Your task to perform on an android device: What's the weather going to be this weekend? Image 0: 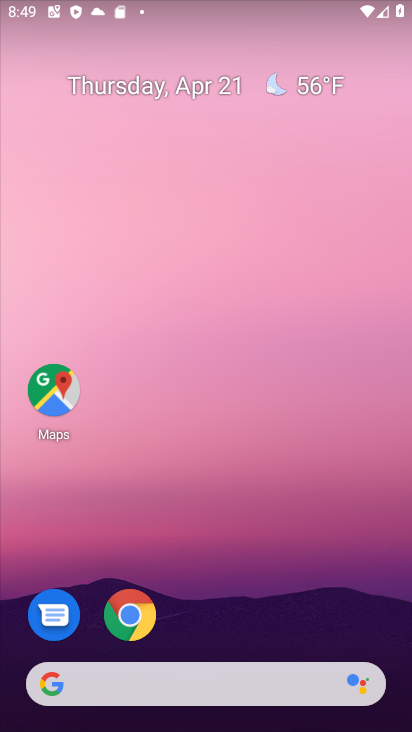
Step 0: drag from (209, 598) to (231, 12)
Your task to perform on an android device: What's the weather going to be this weekend? Image 1: 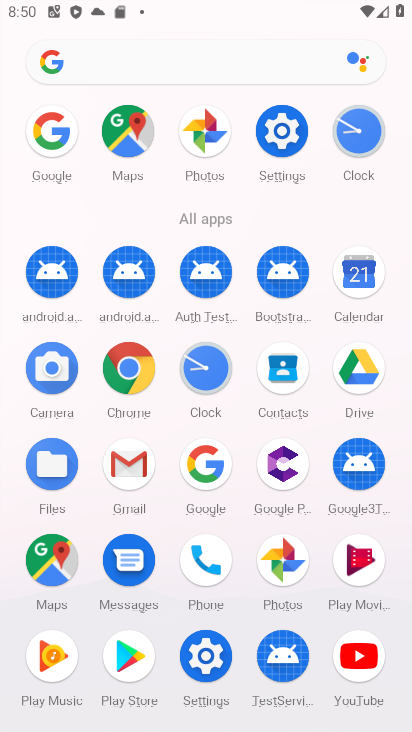
Step 1: click (205, 463)
Your task to perform on an android device: What's the weather going to be this weekend? Image 2: 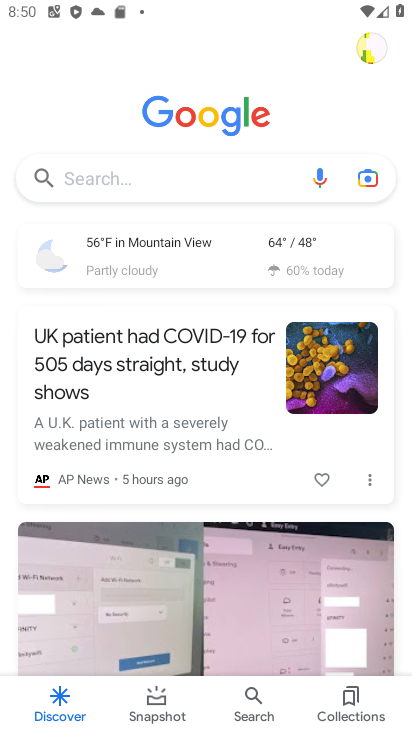
Step 2: click (168, 180)
Your task to perform on an android device: What's the weather going to be this weekend? Image 3: 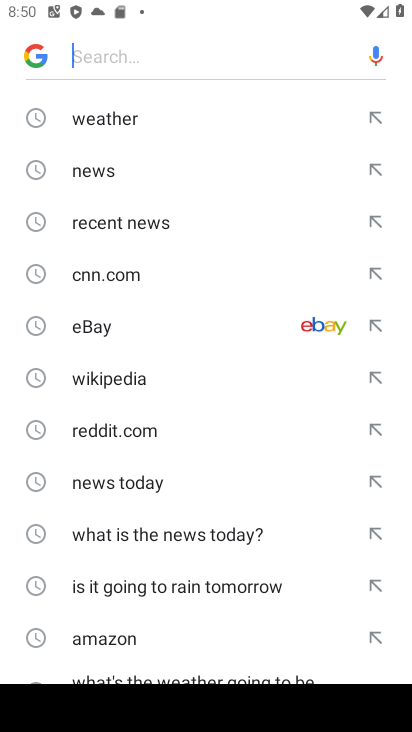
Step 3: type "whats the weather going to be this weekend"
Your task to perform on an android device: What's the weather going to be this weekend? Image 4: 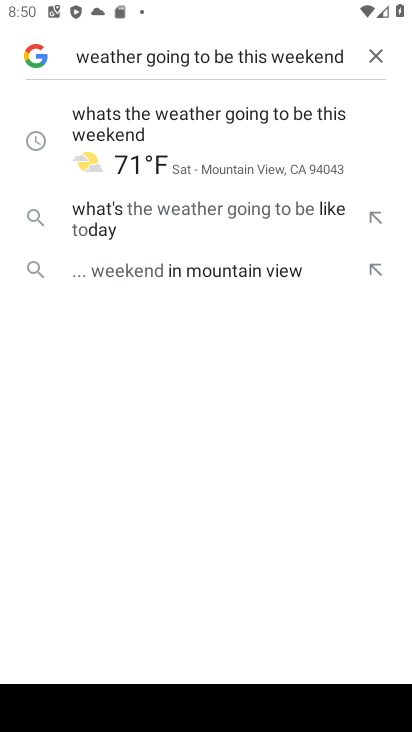
Step 4: click (221, 123)
Your task to perform on an android device: What's the weather going to be this weekend? Image 5: 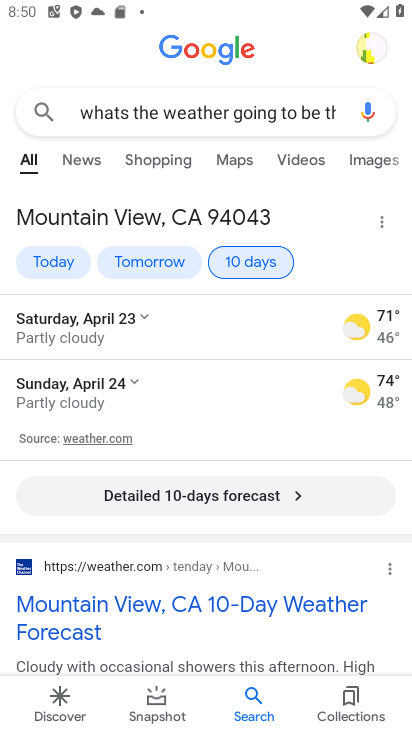
Step 5: task complete